Your task to perform on an android device: turn on sleep mode Image 0: 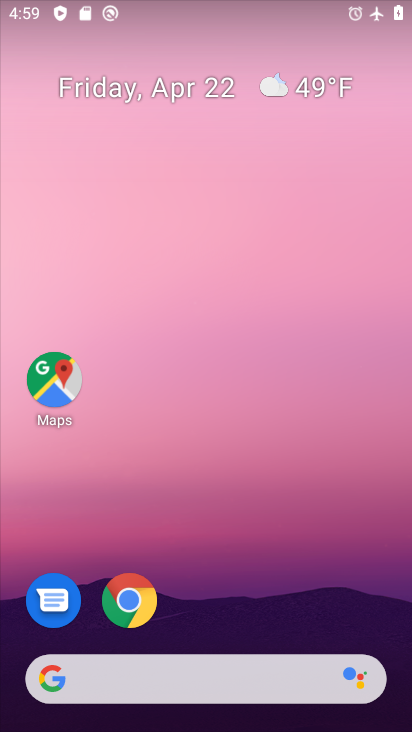
Step 0: drag from (250, 495) to (243, 47)
Your task to perform on an android device: turn on sleep mode Image 1: 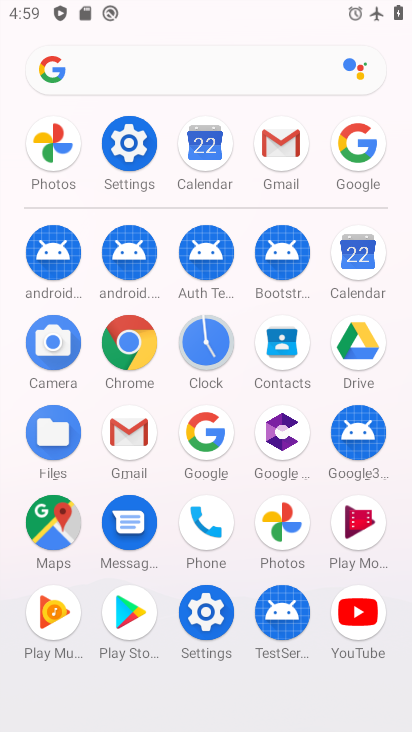
Step 1: click (129, 144)
Your task to perform on an android device: turn on sleep mode Image 2: 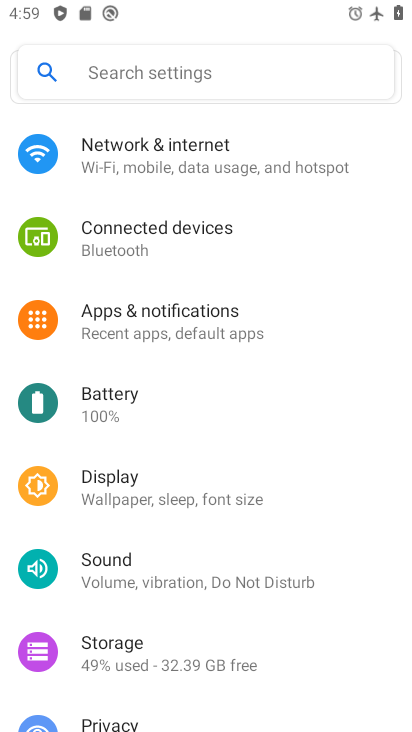
Step 2: click (204, 498)
Your task to perform on an android device: turn on sleep mode Image 3: 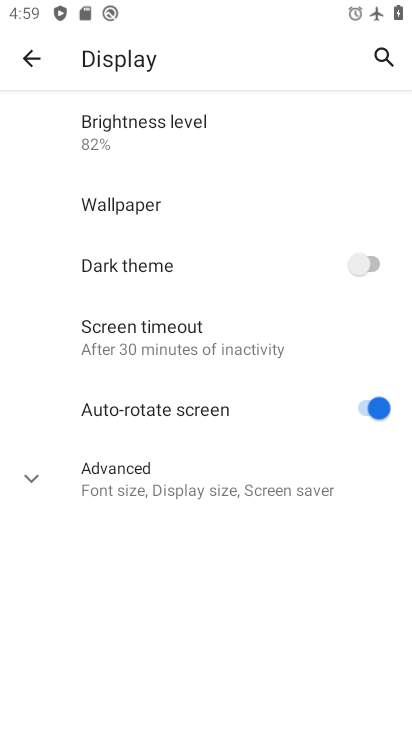
Step 3: click (201, 484)
Your task to perform on an android device: turn on sleep mode Image 4: 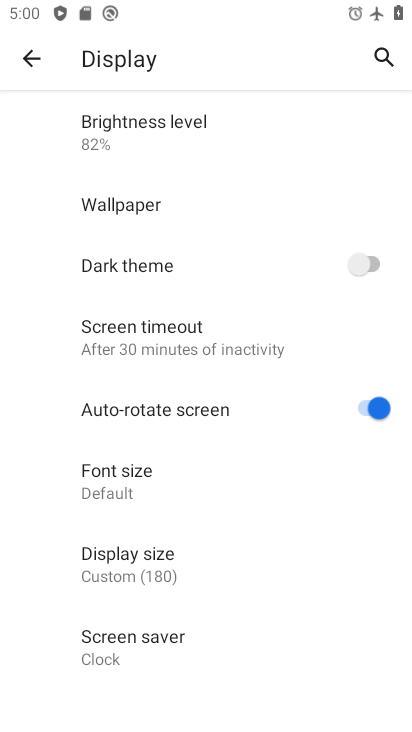
Step 4: click (155, 333)
Your task to perform on an android device: turn on sleep mode Image 5: 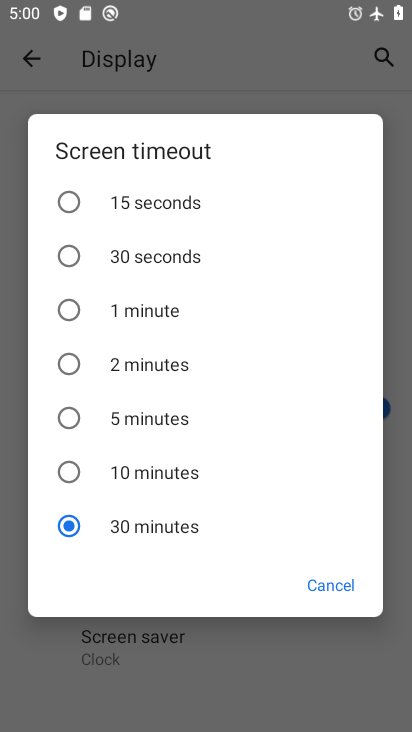
Step 5: click (333, 593)
Your task to perform on an android device: turn on sleep mode Image 6: 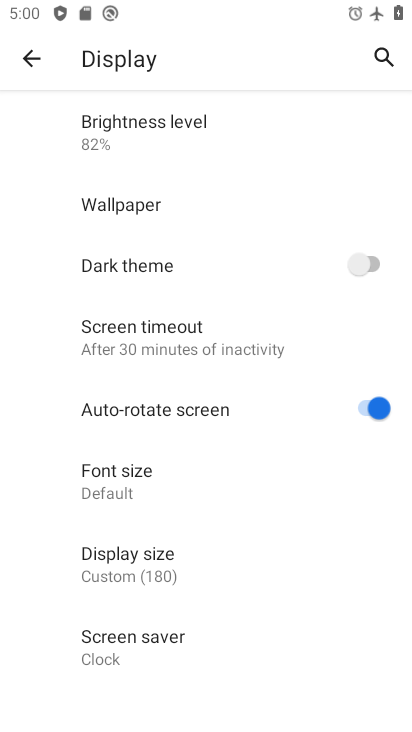
Step 6: task complete